Your task to perform on an android device: toggle wifi Image 0: 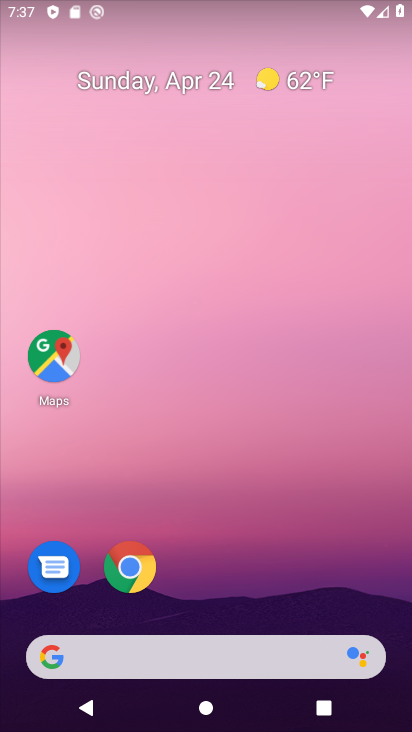
Step 0: drag from (216, 572) to (176, 18)
Your task to perform on an android device: toggle wifi Image 1: 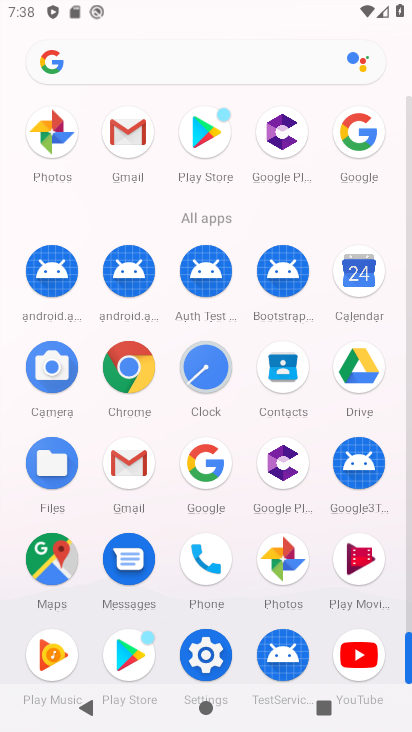
Step 1: click (208, 655)
Your task to perform on an android device: toggle wifi Image 2: 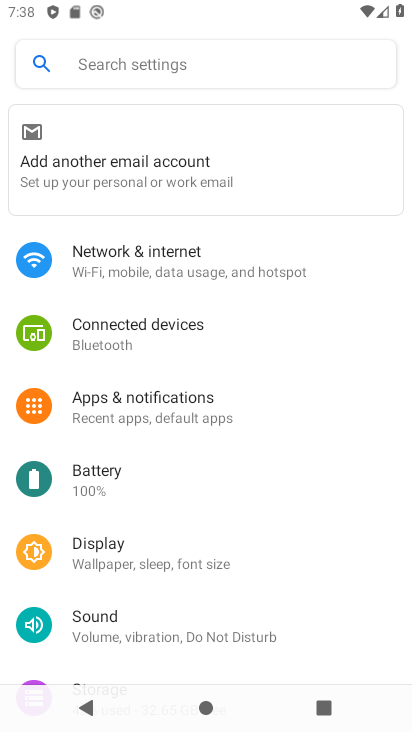
Step 2: click (175, 255)
Your task to perform on an android device: toggle wifi Image 3: 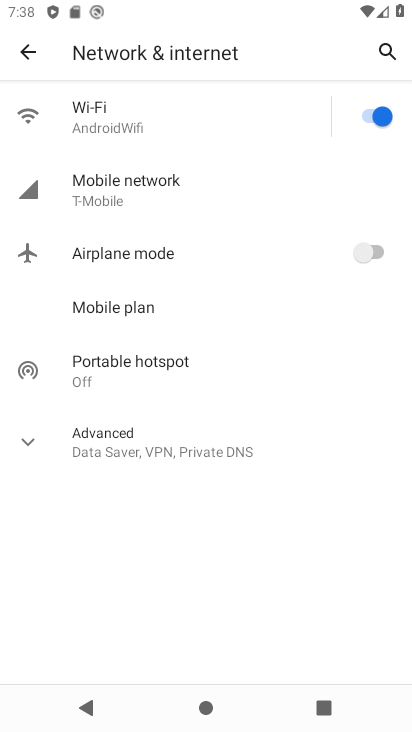
Step 3: click (382, 116)
Your task to perform on an android device: toggle wifi Image 4: 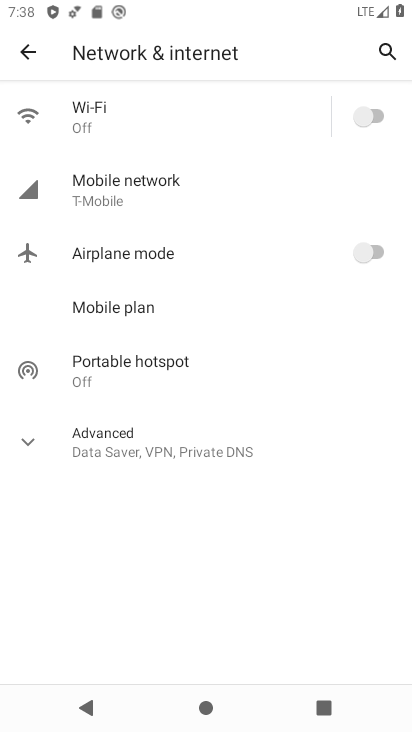
Step 4: task complete